Your task to perform on an android device: Search for vegetarian restaurants on Maps Image 0: 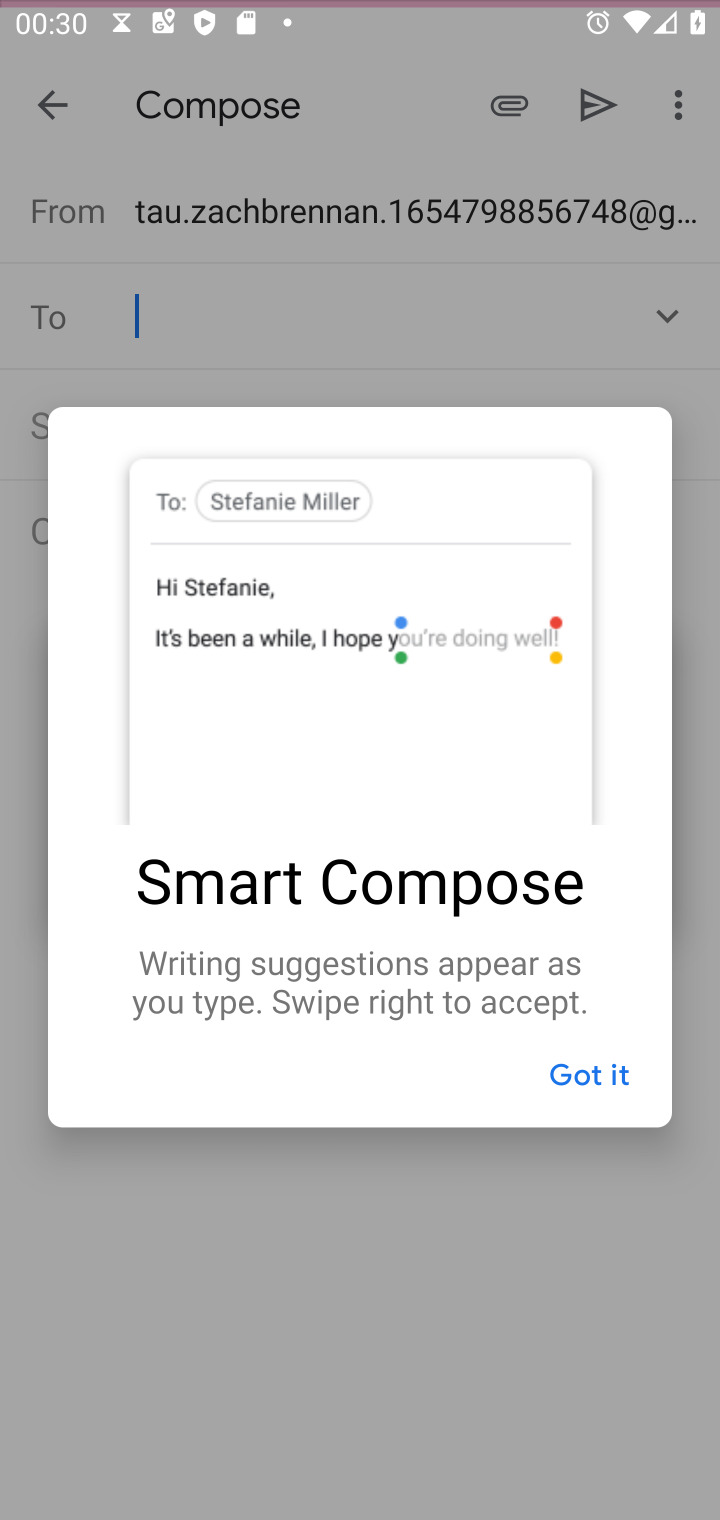
Step 0: press home button
Your task to perform on an android device: Search for vegetarian restaurants on Maps Image 1: 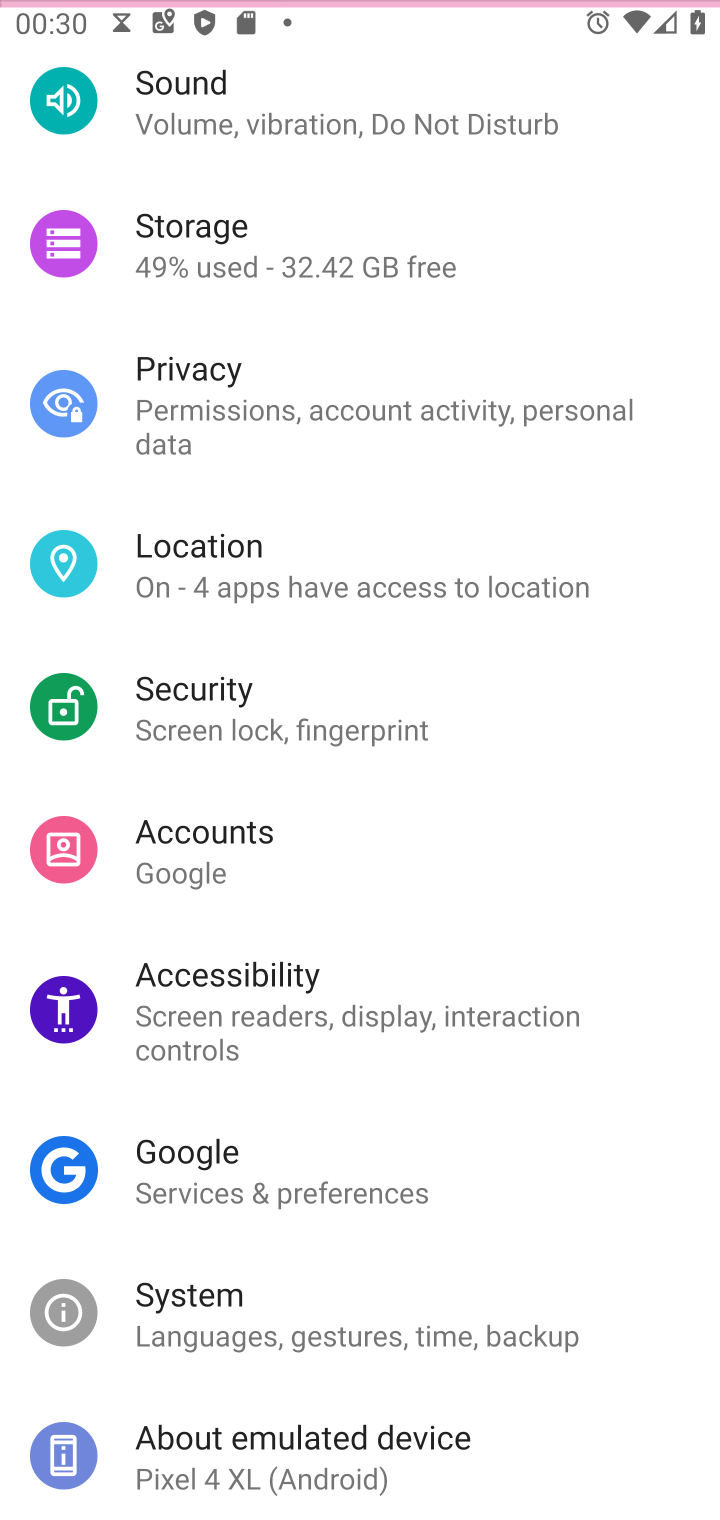
Step 1: press home button
Your task to perform on an android device: Search for vegetarian restaurants on Maps Image 2: 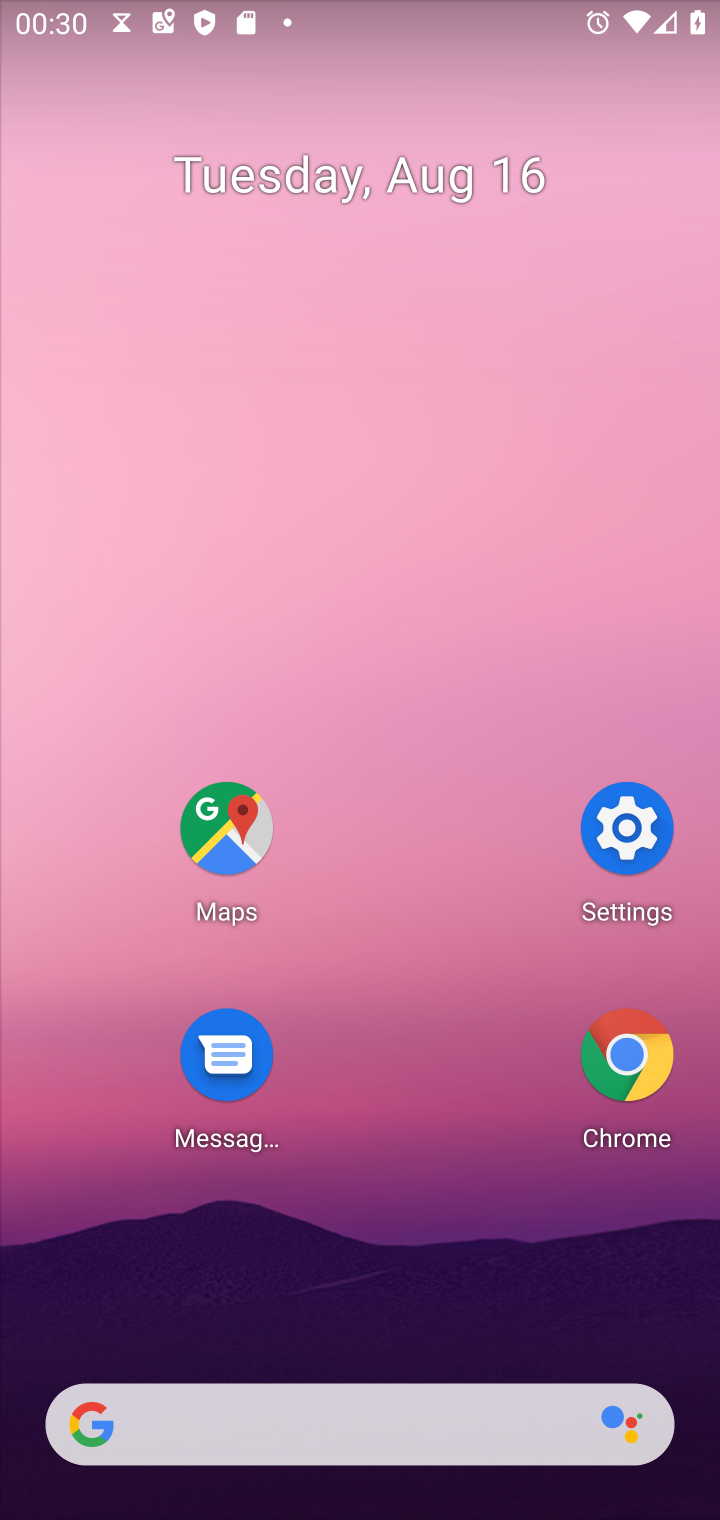
Step 2: click (221, 838)
Your task to perform on an android device: Search for vegetarian restaurants on Maps Image 3: 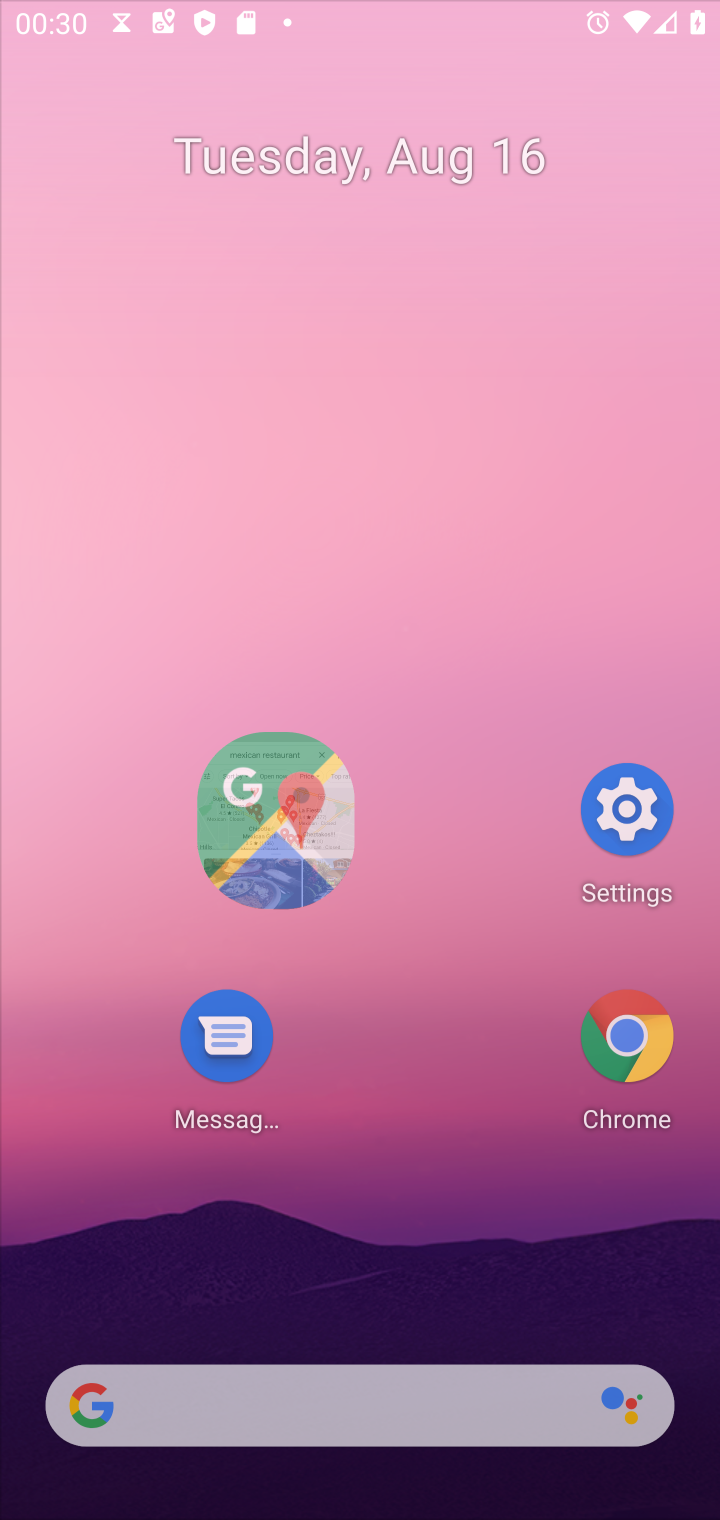
Step 3: click (221, 849)
Your task to perform on an android device: Search for vegetarian restaurants on Maps Image 4: 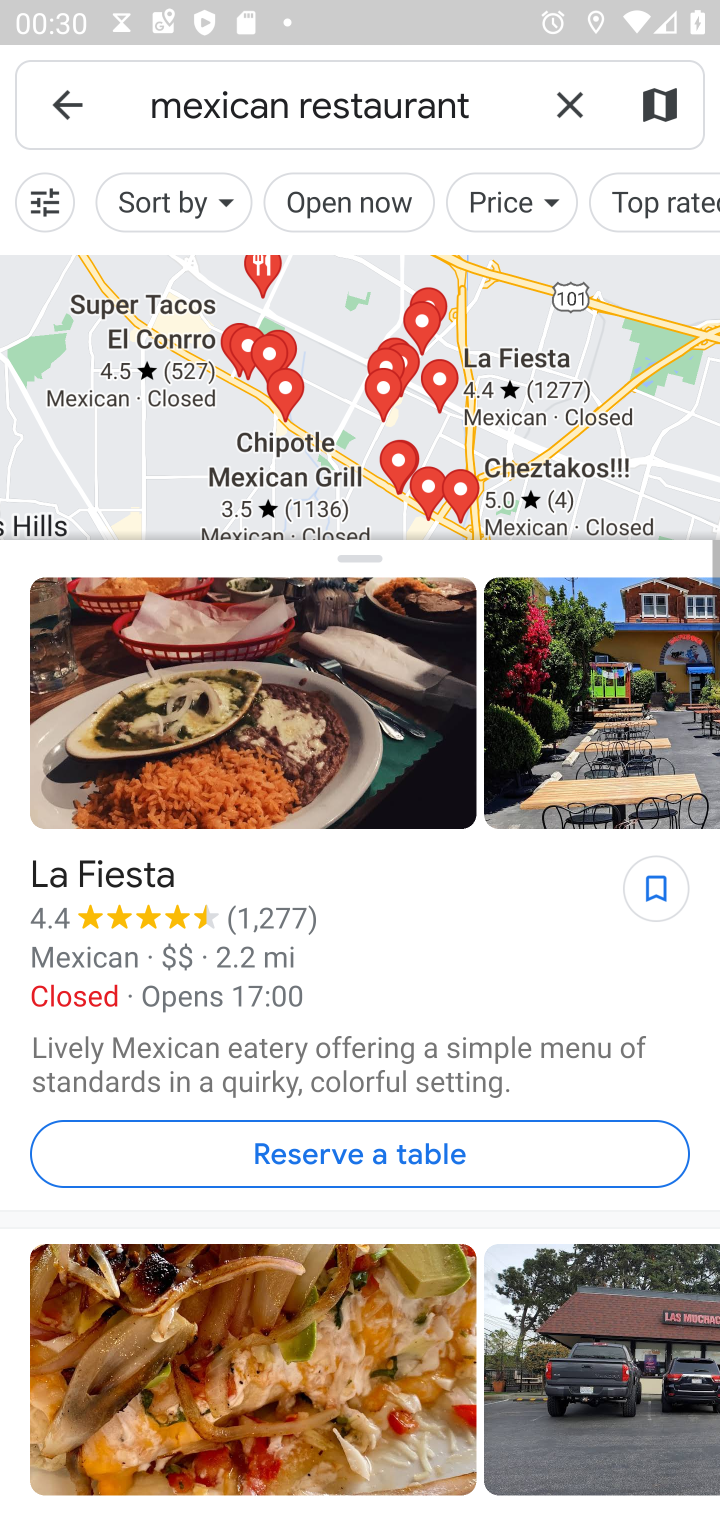
Step 4: click (572, 99)
Your task to perform on an android device: Search for vegetarian restaurants on Maps Image 5: 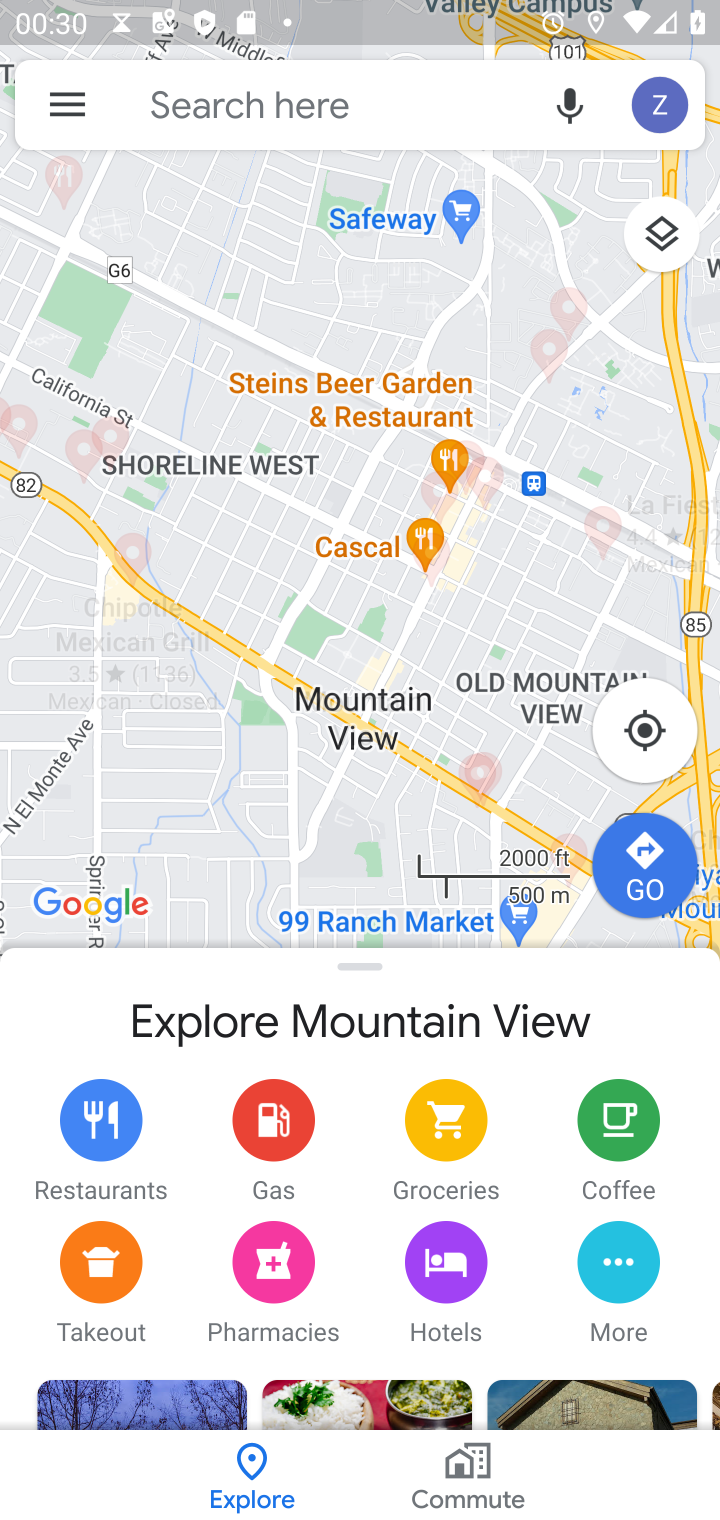
Step 5: click (199, 92)
Your task to perform on an android device: Search for vegetarian restaurants on Maps Image 6: 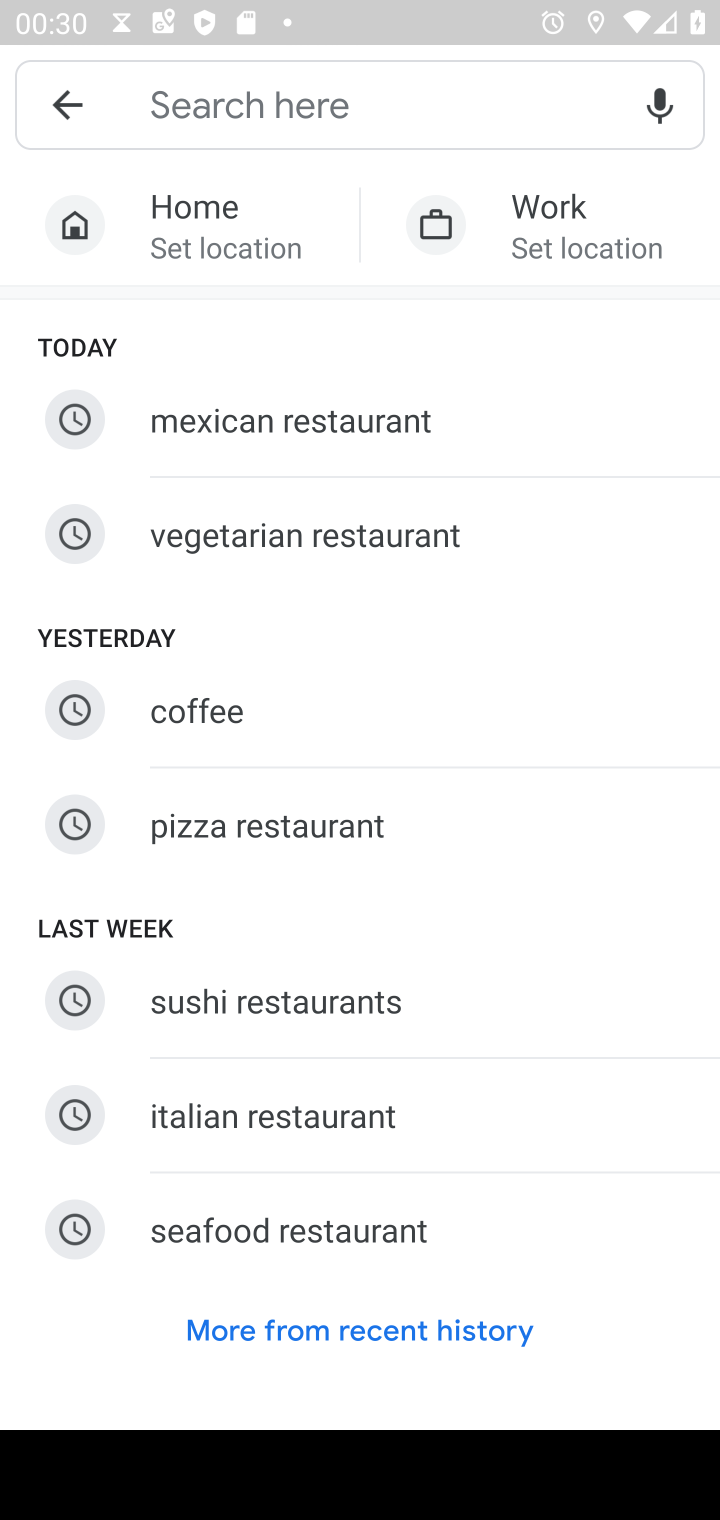
Step 6: click (329, 547)
Your task to perform on an android device: Search for vegetarian restaurants on Maps Image 7: 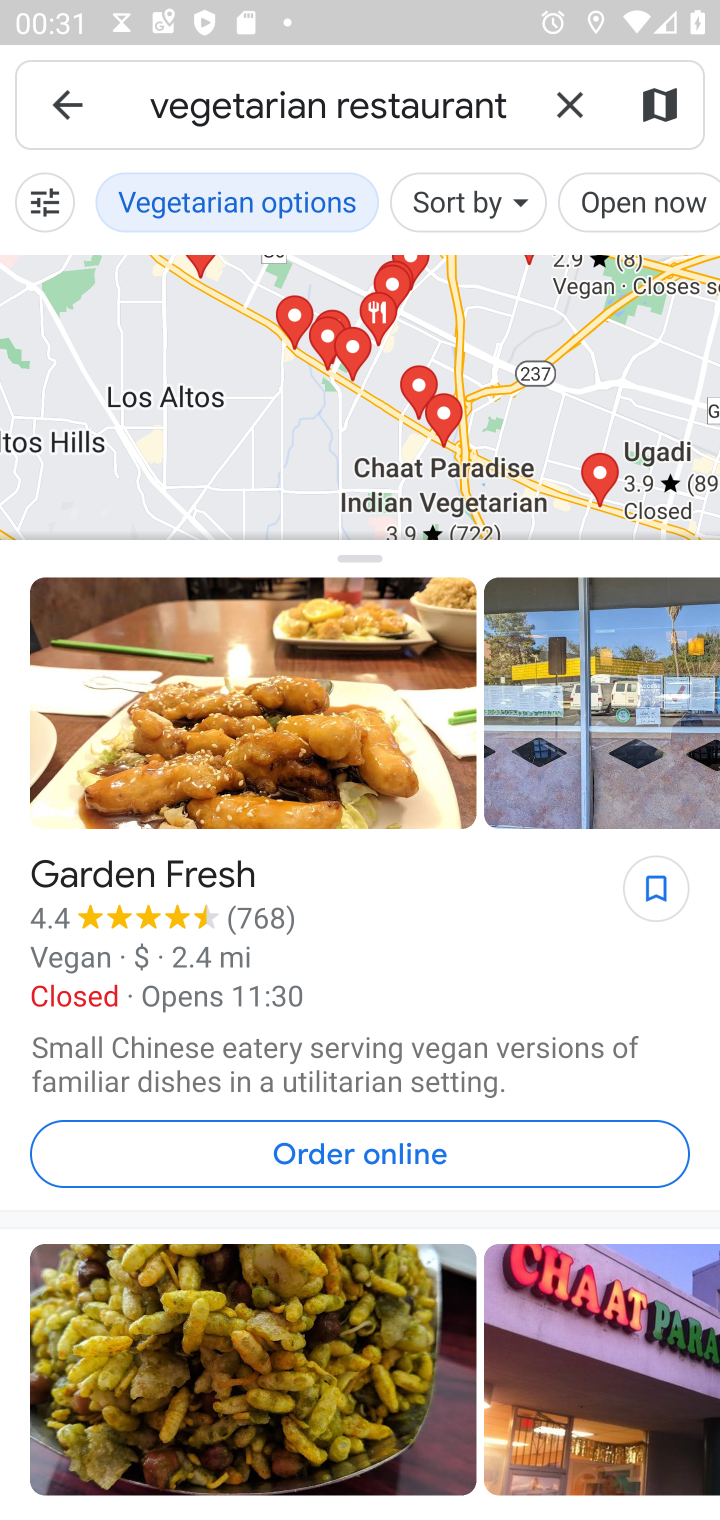
Step 7: task complete